Your task to perform on an android device: turn on javascript in the chrome app Image 0: 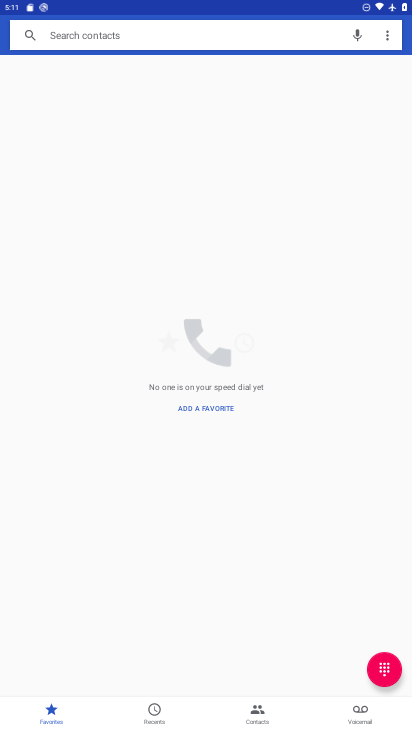
Step 0: press home button
Your task to perform on an android device: turn on javascript in the chrome app Image 1: 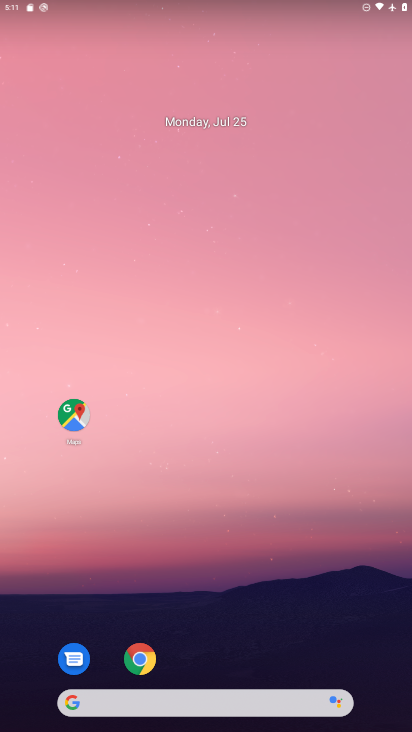
Step 1: click (134, 659)
Your task to perform on an android device: turn on javascript in the chrome app Image 2: 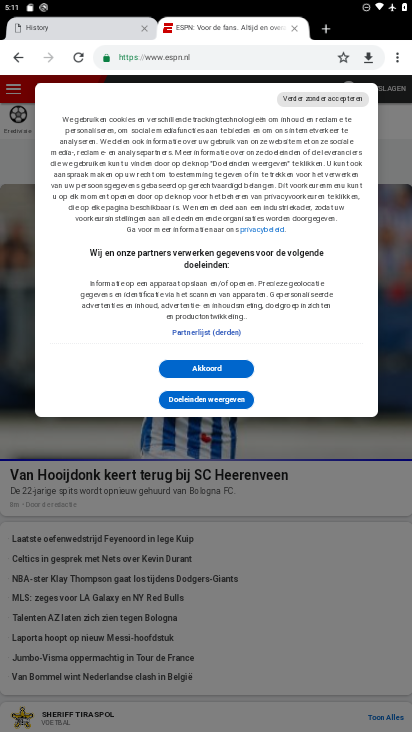
Step 2: click (401, 57)
Your task to perform on an android device: turn on javascript in the chrome app Image 3: 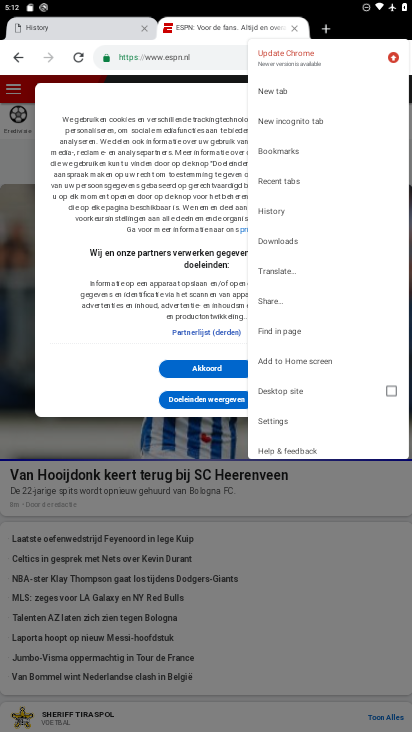
Step 3: click (280, 416)
Your task to perform on an android device: turn on javascript in the chrome app Image 4: 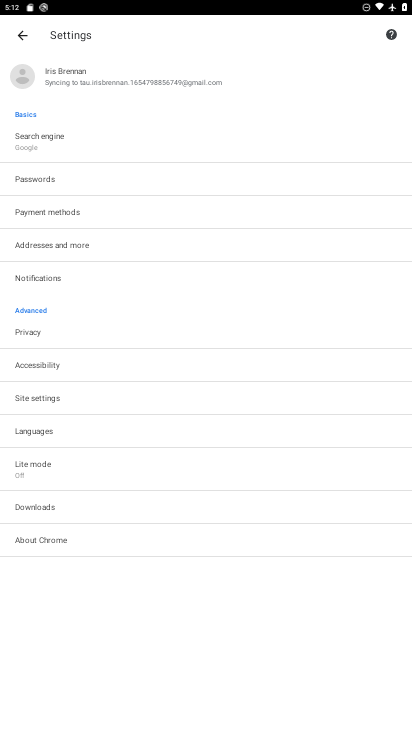
Step 4: click (87, 399)
Your task to perform on an android device: turn on javascript in the chrome app Image 5: 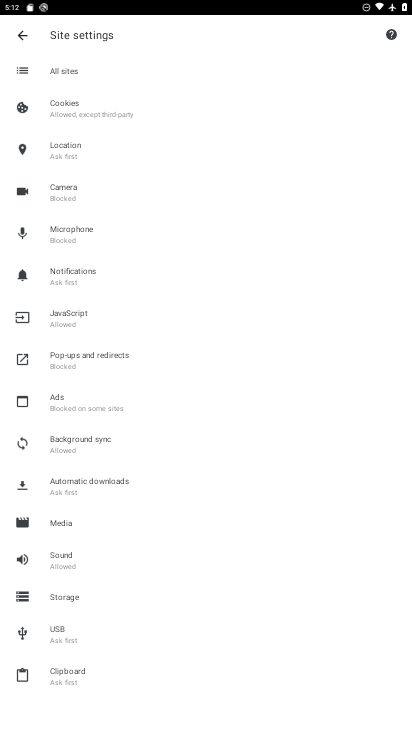
Step 5: click (105, 313)
Your task to perform on an android device: turn on javascript in the chrome app Image 6: 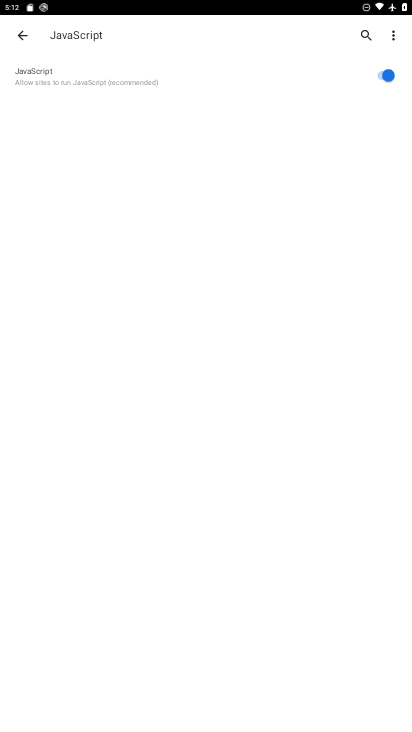
Step 6: task complete